Your task to perform on an android device: Go to eBay Image 0: 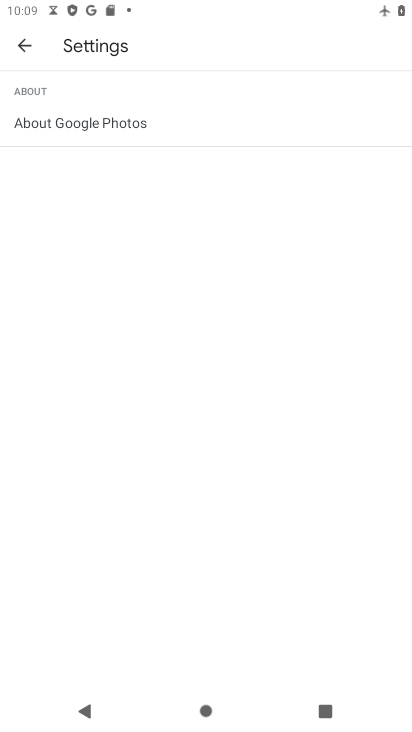
Step 0: press home button
Your task to perform on an android device: Go to eBay Image 1: 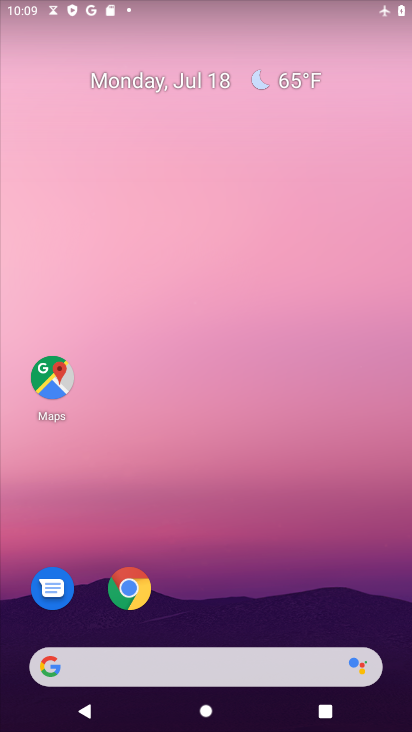
Step 1: click (130, 591)
Your task to perform on an android device: Go to eBay Image 2: 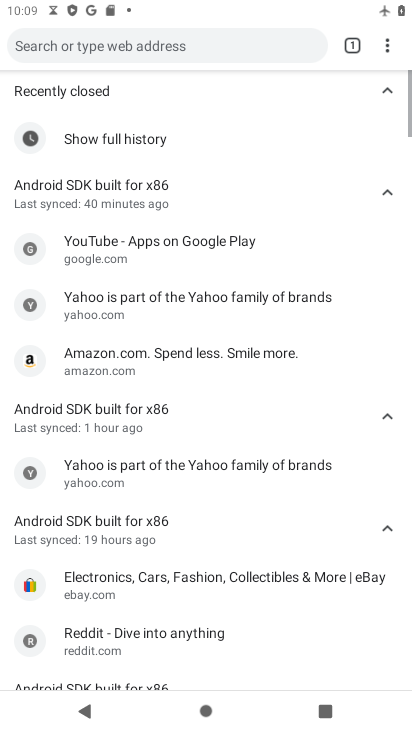
Step 2: click (189, 48)
Your task to perform on an android device: Go to eBay Image 3: 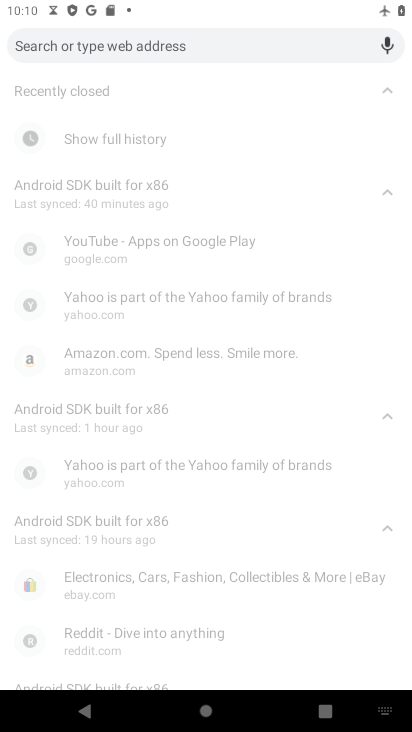
Step 3: type "eBay"
Your task to perform on an android device: Go to eBay Image 4: 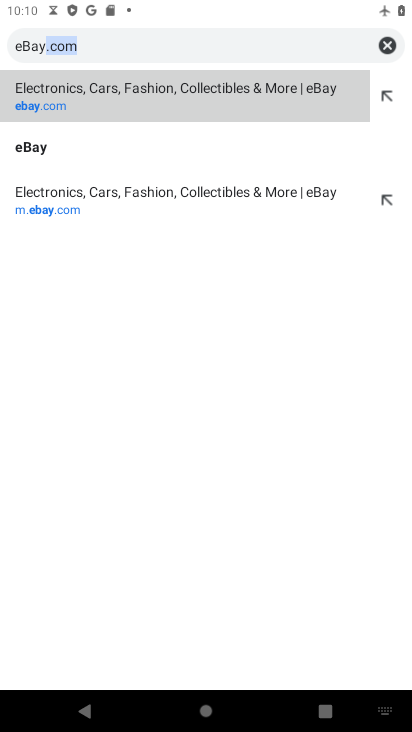
Step 4: type ""
Your task to perform on an android device: Go to eBay Image 5: 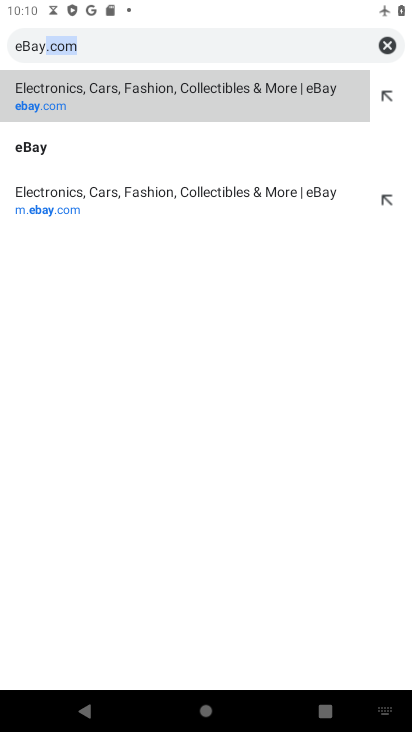
Step 5: click (40, 149)
Your task to perform on an android device: Go to eBay Image 6: 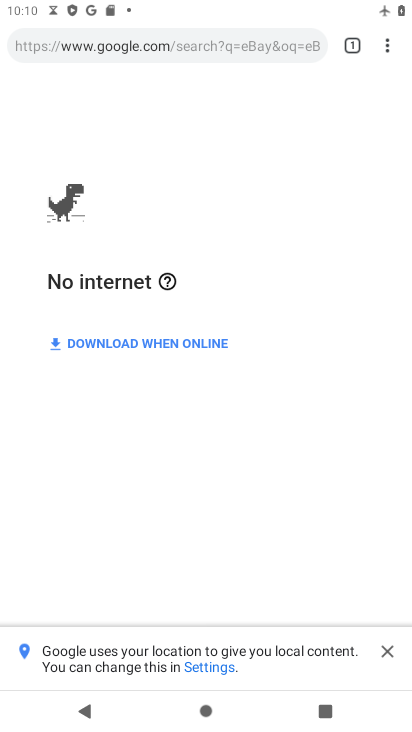
Step 6: task complete